Your task to perform on an android device: Go to Yahoo.com Image 0: 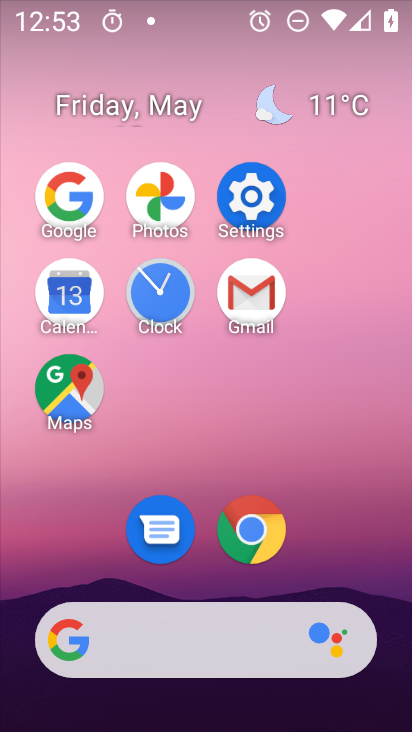
Step 0: click (248, 529)
Your task to perform on an android device: Go to Yahoo.com Image 1: 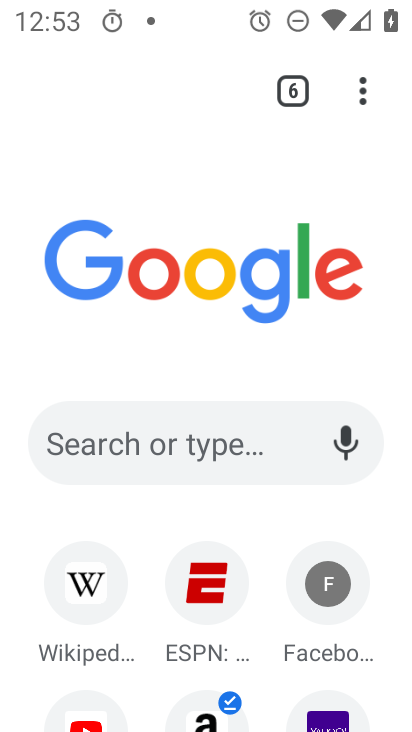
Step 1: drag from (290, 541) to (315, 268)
Your task to perform on an android device: Go to Yahoo.com Image 2: 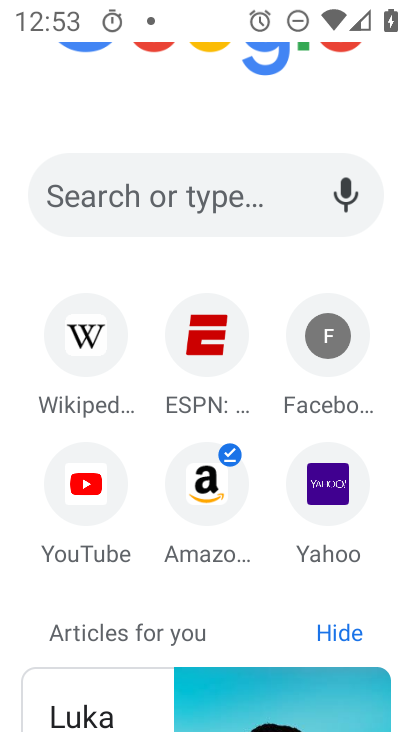
Step 2: click (320, 461)
Your task to perform on an android device: Go to Yahoo.com Image 3: 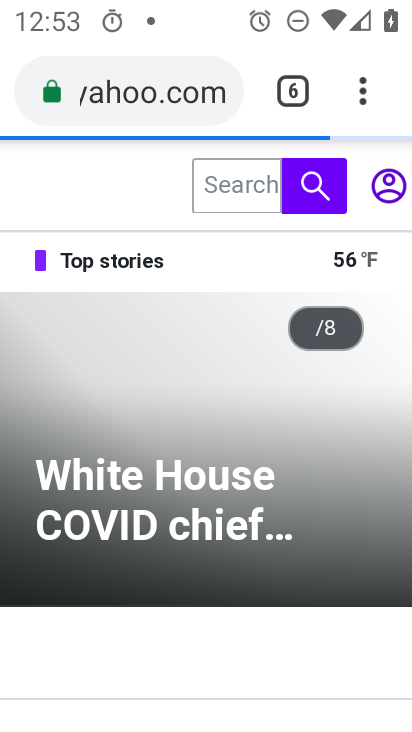
Step 3: task complete